Your task to perform on an android device: Add "lenovo thinkpad" to the cart on costco.com Image 0: 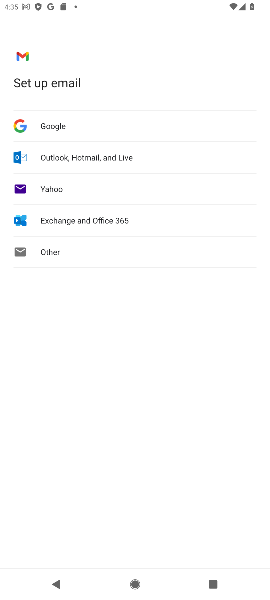
Step 0: press home button
Your task to perform on an android device: Add "lenovo thinkpad" to the cart on costco.com Image 1: 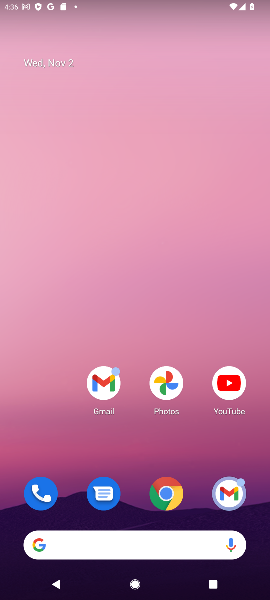
Step 1: drag from (79, 526) to (90, 164)
Your task to perform on an android device: Add "lenovo thinkpad" to the cart on costco.com Image 2: 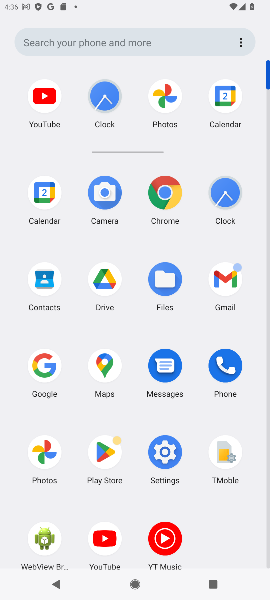
Step 2: click (36, 358)
Your task to perform on an android device: Add "lenovo thinkpad" to the cart on costco.com Image 3: 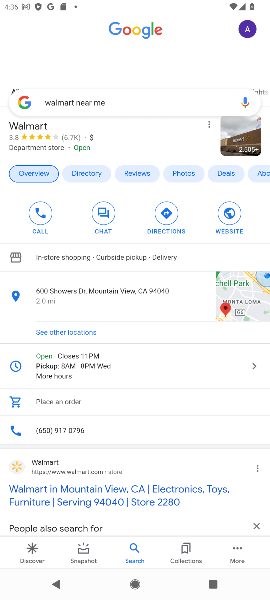
Step 3: click (70, 99)
Your task to perform on an android device: Add "lenovo thinkpad" to the cart on costco.com Image 4: 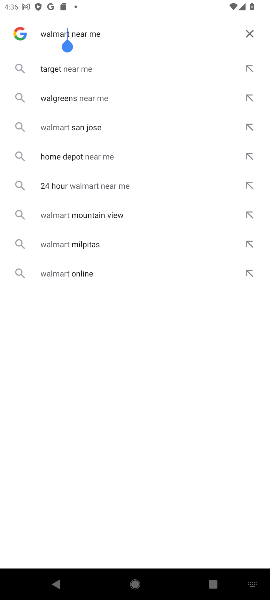
Step 4: click (248, 28)
Your task to perform on an android device: Add "lenovo thinkpad" to the cart on costco.com Image 5: 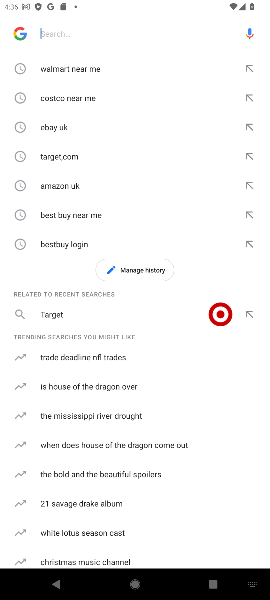
Step 5: click (59, 32)
Your task to perform on an android device: Add "lenovo thinkpad" to the cart on costco.com Image 6: 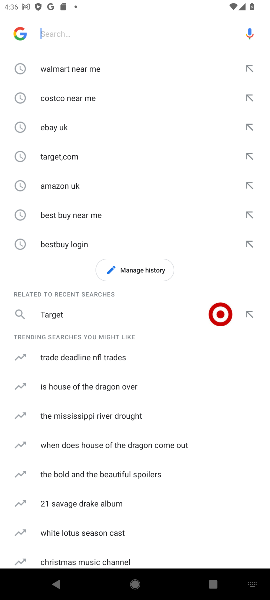
Step 6: type "costco "
Your task to perform on an android device: Add "lenovo thinkpad" to the cart on costco.com Image 7: 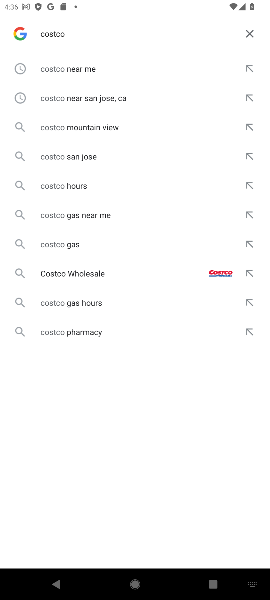
Step 7: click (89, 69)
Your task to perform on an android device: Add "lenovo thinkpad" to the cart on costco.com Image 8: 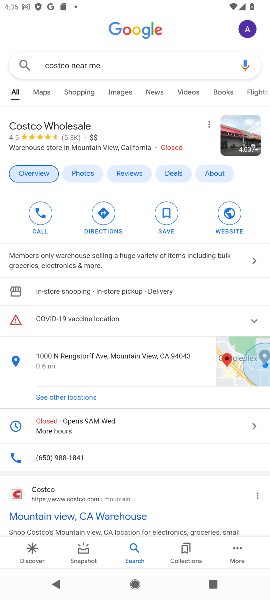
Step 8: click (17, 497)
Your task to perform on an android device: Add "lenovo thinkpad" to the cart on costco.com Image 9: 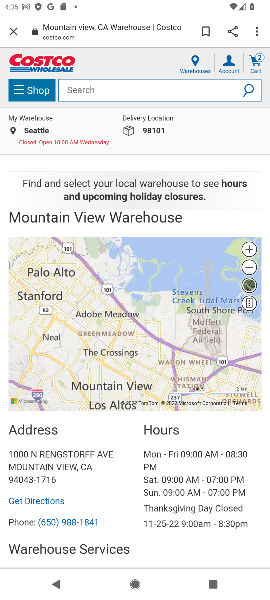
Step 9: click (129, 86)
Your task to perform on an android device: Add "lenovo thinkpad" to the cart on costco.com Image 10: 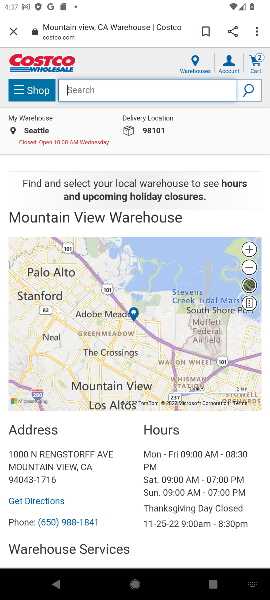
Step 10: click (117, 88)
Your task to perform on an android device: Add "lenovo thinkpad" to the cart on costco.com Image 11: 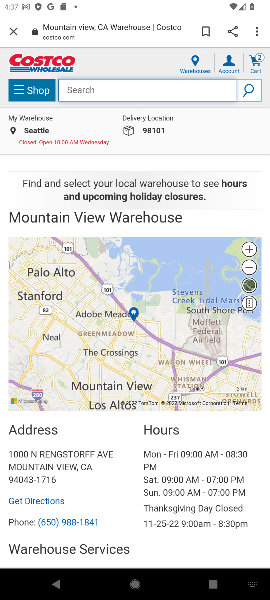
Step 11: type "lenovo thinkpad "
Your task to perform on an android device: Add "lenovo thinkpad" to the cart on costco.com Image 12: 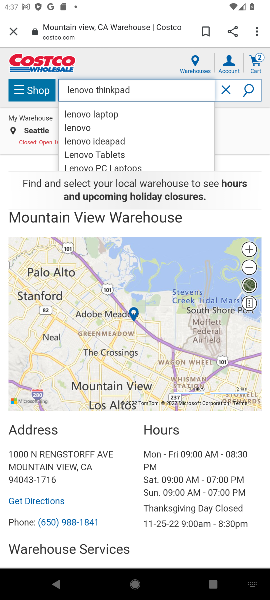
Step 12: click (106, 155)
Your task to perform on an android device: Add "lenovo thinkpad" to the cart on costco.com Image 13: 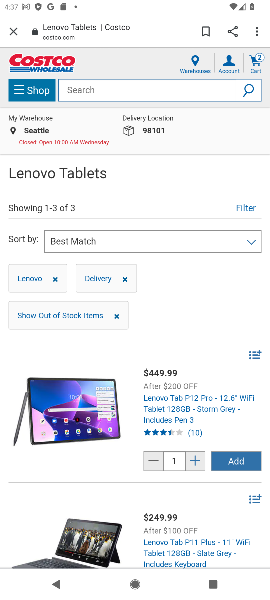
Step 13: drag from (106, 492) to (110, 369)
Your task to perform on an android device: Add "lenovo thinkpad" to the cart on costco.com Image 14: 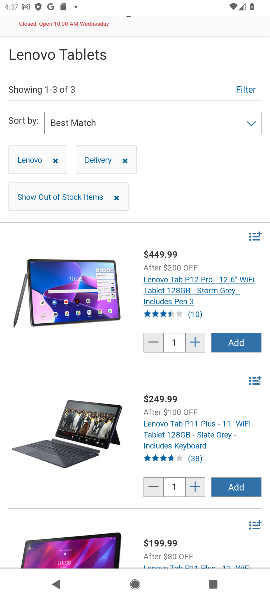
Step 14: drag from (93, 485) to (98, 394)
Your task to perform on an android device: Add "lenovo thinkpad" to the cart on costco.com Image 15: 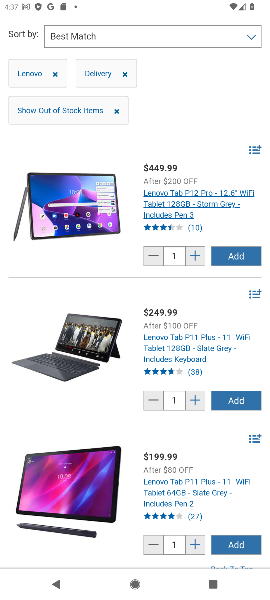
Step 15: click (251, 260)
Your task to perform on an android device: Add "lenovo thinkpad" to the cart on costco.com Image 16: 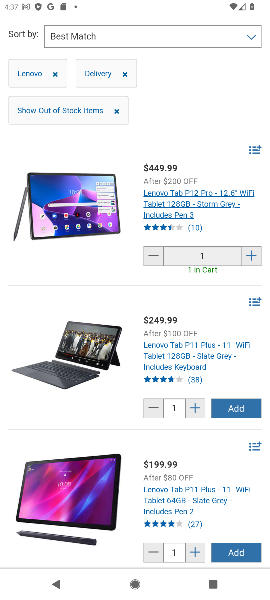
Step 16: task complete